Your task to perform on an android device: Search for the new lego star wars 2021 on Target Image 0: 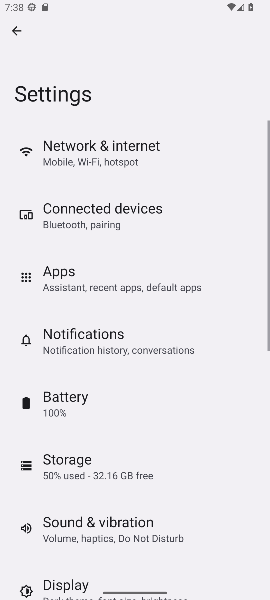
Step 0: press home button
Your task to perform on an android device: Search for the new lego star wars 2021 on Target Image 1: 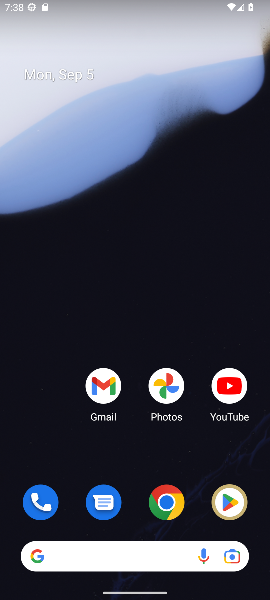
Step 1: drag from (199, 492) to (146, 15)
Your task to perform on an android device: Search for the new lego star wars 2021 on Target Image 2: 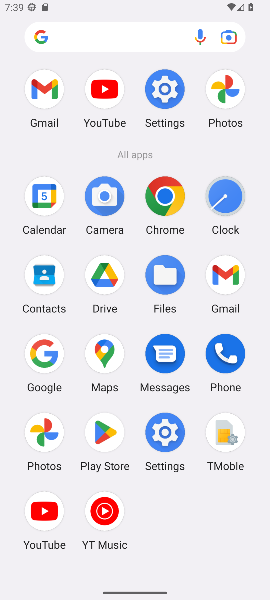
Step 2: click (46, 362)
Your task to perform on an android device: Search for the new lego star wars 2021 on Target Image 3: 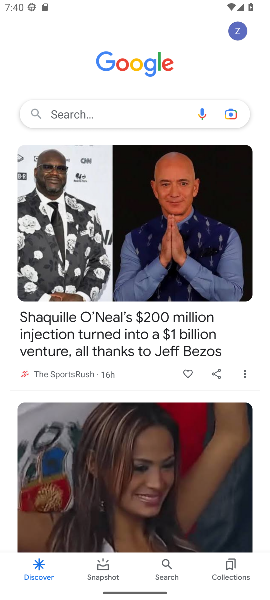
Step 3: click (83, 117)
Your task to perform on an android device: Search for the new lego star wars 2021 on Target Image 4: 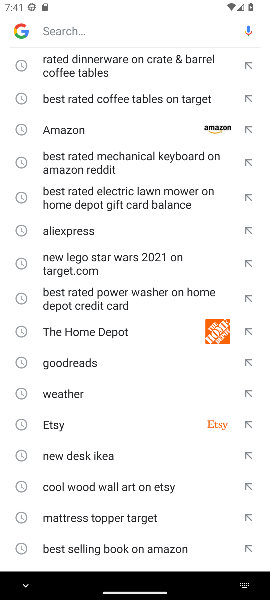
Step 4: type " new lego star wars 2021 on Target"
Your task to perform on an android device: Search for the new lego star wars 2021 on Target Image 5: 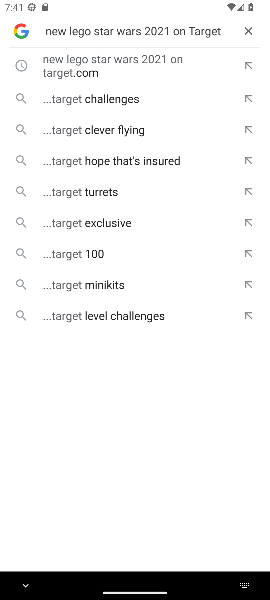
Step 5: click (124, 68)
Your task to perform on an android device: Search for the new lego star wars 2021 on Target Image 6: 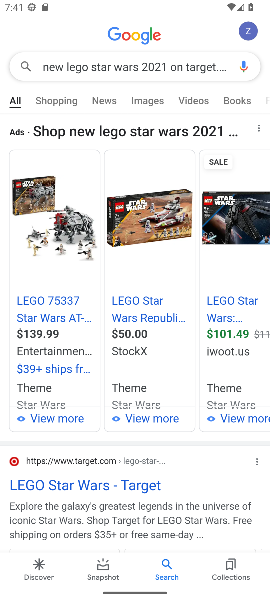
Step 6: task complete